Your task to perform on an android device: turn off javascript in the chrome app Image 0: 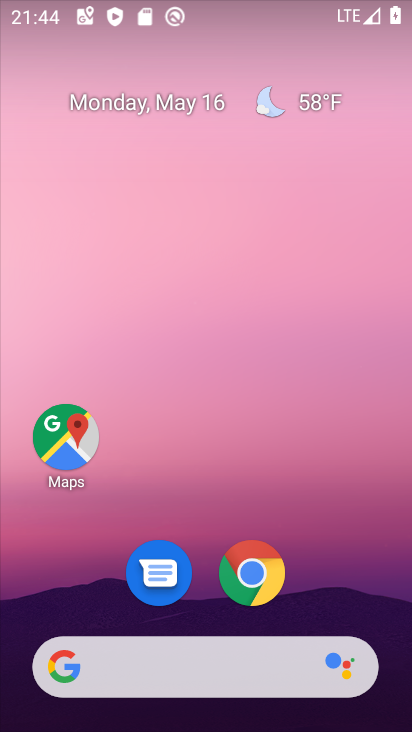
Step 0: click (250, 572)
Your task to perform on an android device: turn off javascript in the chrome app Image 1: 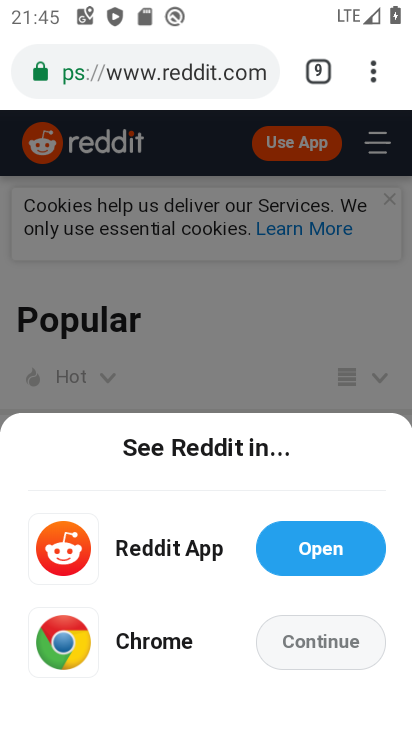
Step 1: click (374, 80)
Your task to perform on an android device: turn off javascript in the chrome app Image 2: 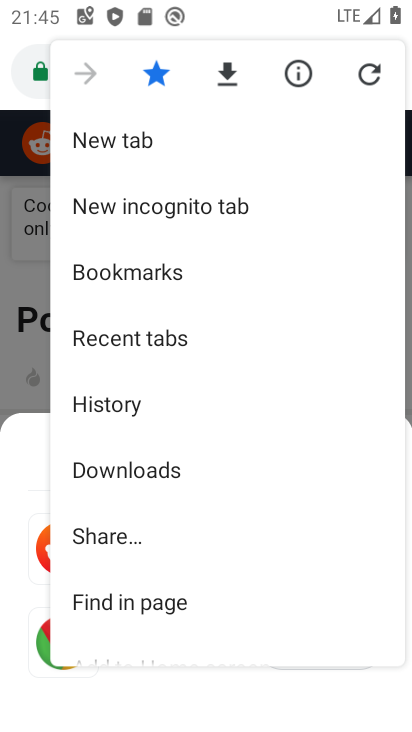
Step 2: drag from (173, 571) to (180, 167)
Your task to perform on an android device: turn off javascript in the chrome app Image 3: 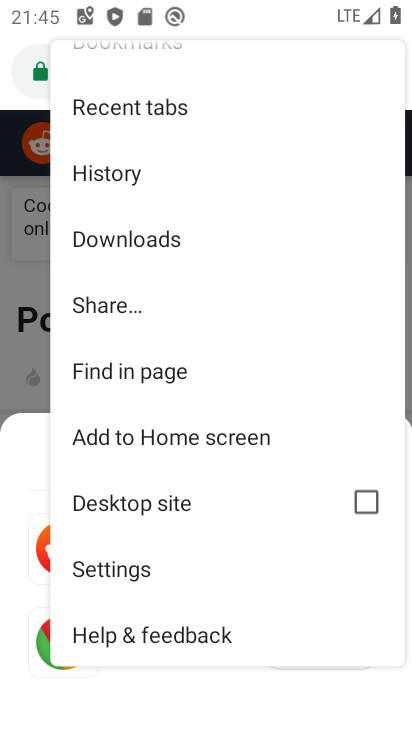
Step 3: click (125, 570)
Your task to perform on an android device: turn off javascript in the chrome app Image 4: 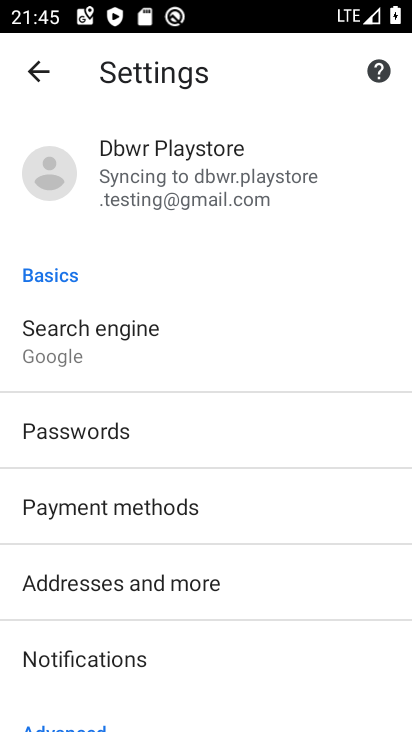
Step 4: drag from (150, 695) to (146, 337)
Your task to perform on an android device: turn off javascript in the chrome app Image 5: 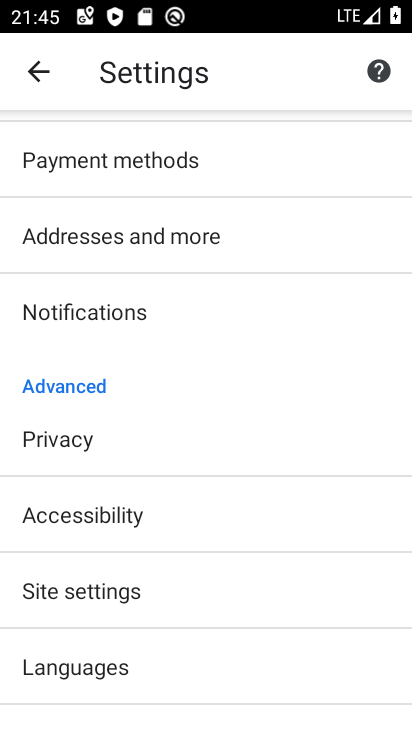
Step 5: click (77, 588)
Your task to perform on an android device: turn off javascript in the chrome app Image 6: 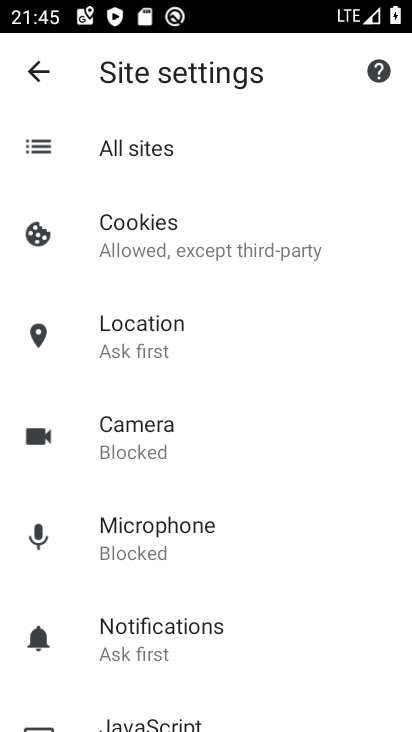
Step 6: drag from (142, 677) to (187, 251)
Your task to perform on an android device: turn off javascript in the chrome app Image 7: 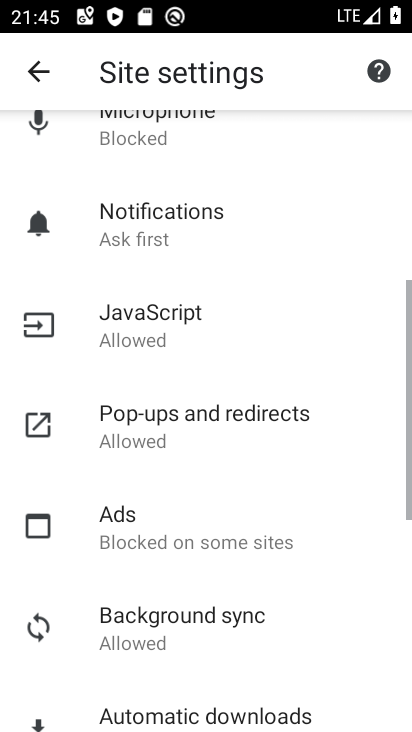
Step 7: click (148, 326)
Your task to perform on an android device: turn off javascript in the chrome app Image 8: 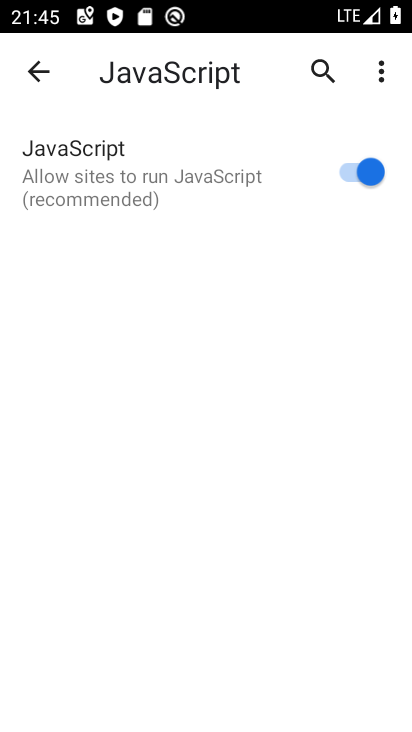
Step 8: click (349, 177)
Your task to perform on an android device: turn off javascript in the chrome app Image 9: 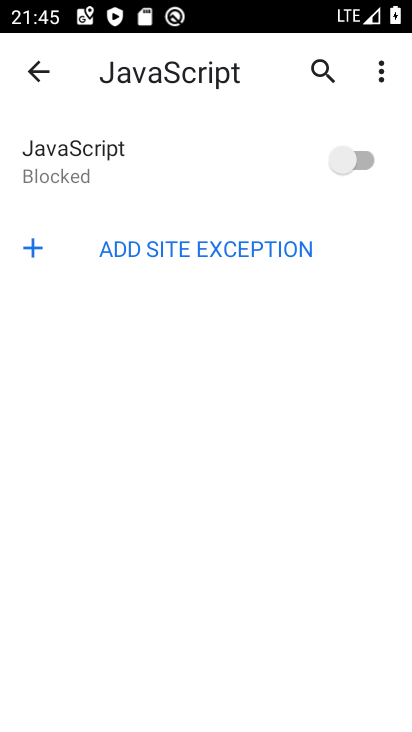
Step 9: task complete